Your task to perform on an android device: choose inbox layout in the gmail app Image 0: 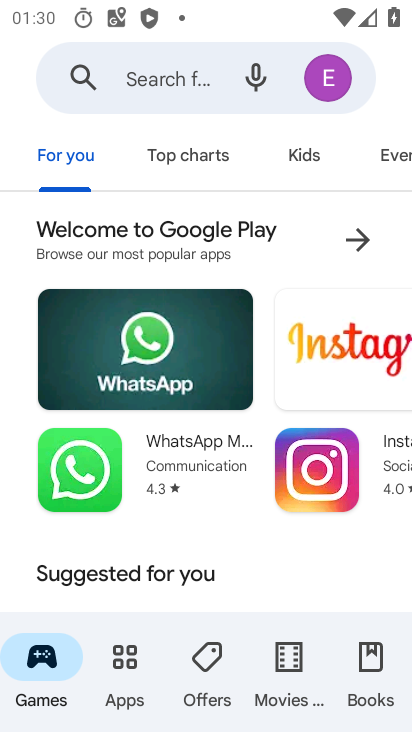
Step 0: press back button
Your task to perform on an android device: choose inbox layout in the gmail app Image 1: 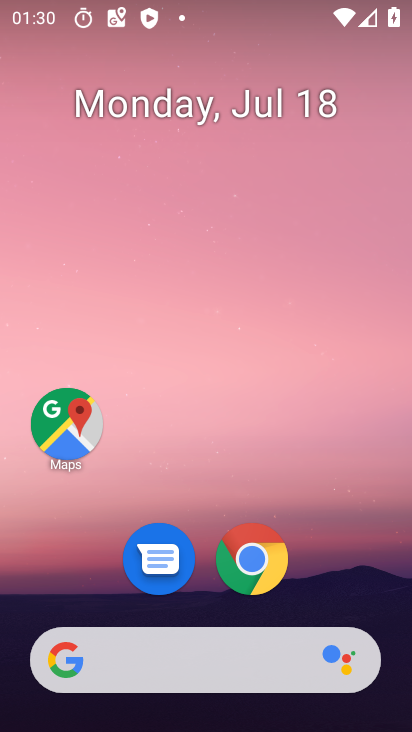
Step 1: drag from (180, 586) to (235, 29)
Your task to perform on an android device: choose inbox layout in the gmail app Image 2: 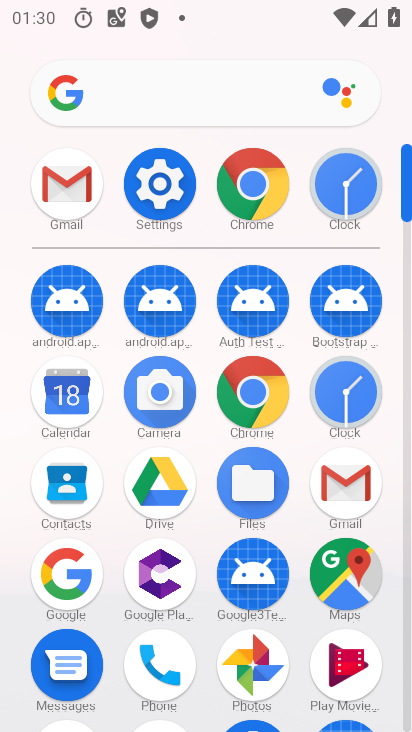
Step 2: click (72, 189)
Your task to perform on an android device: choose inbox layout in the gmail app Image 3: 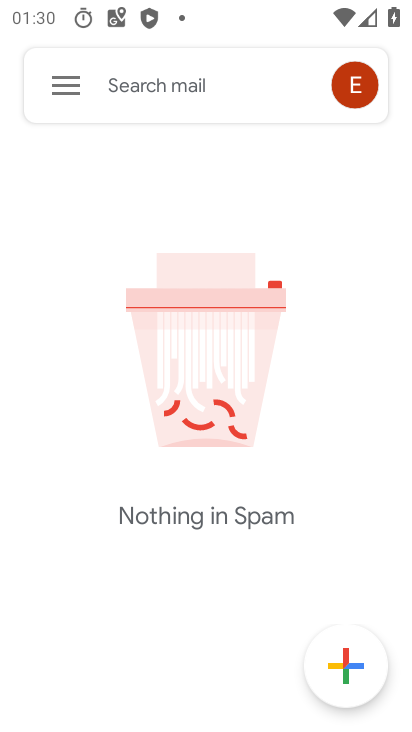
Step 3: click (54, 69)
Your task to perform on an android device: choose inbox layout in the gmail app Image 4: 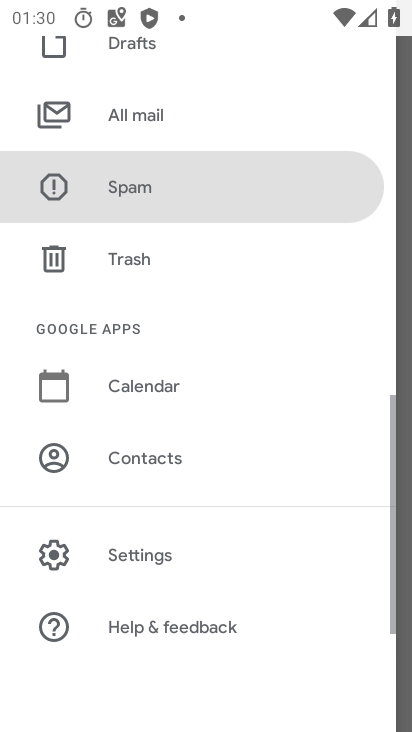
Step 4: click (180, 559)
Your task to perform on an android device: choose inbox layout in the gmail app Image 5: 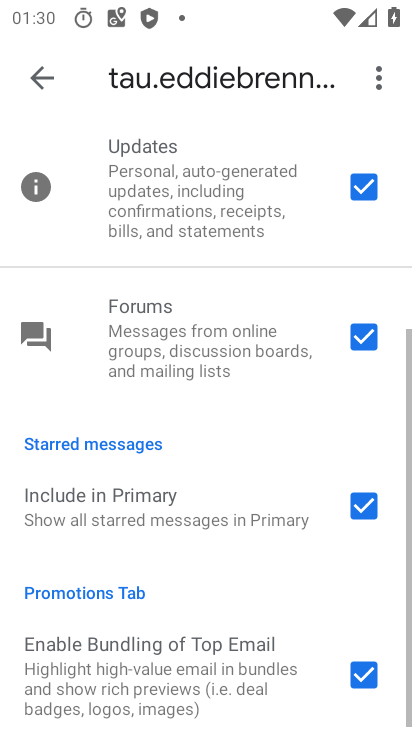
Step 5: drag from (188, 201) to (172, 719)
Your task to perform on an android device: choose inbox layout in the gmail app Image 6: 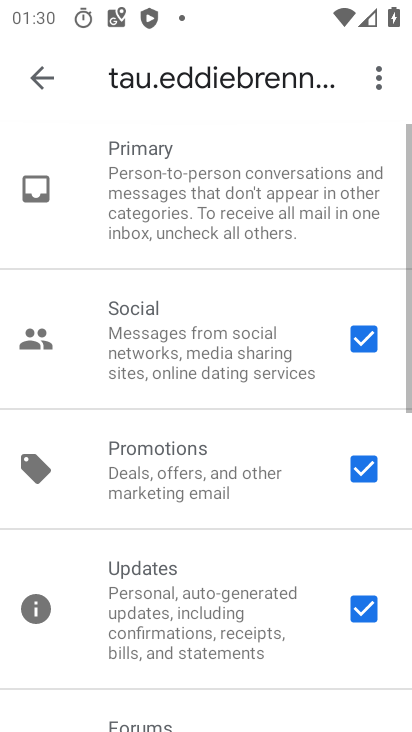
Step 6: drag from (169, 208) to (205, 729)
Your task to perform on an android device: choose inbox layout in the gmail app Image 7: 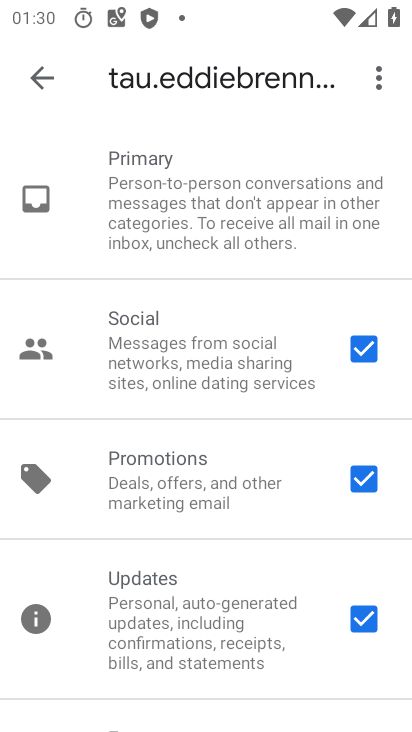
Step 7: click (36, 79)
Your task to perform on an android device: choose inbox layout in the gmail app Image 8: 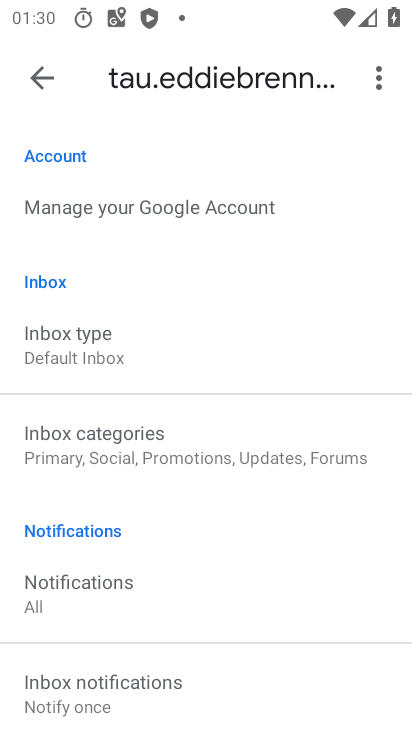
Step 8: click (82, 346)
Your task to perform on an android device: choose inbox layout in the gmail app Image 9: 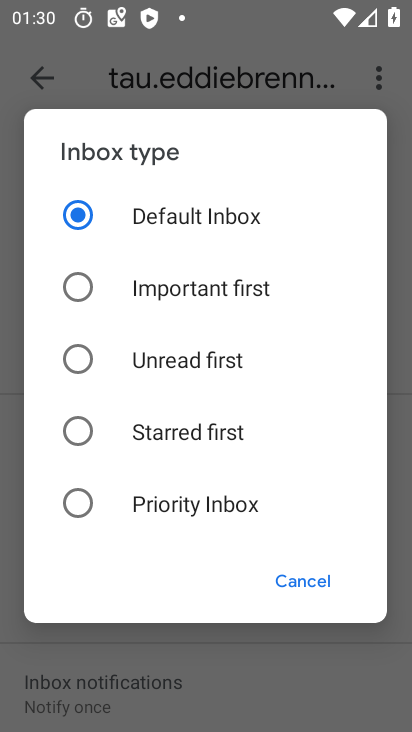
Step 9: click (70, 495)
Your task to perform on an android device: choose inbox layout in the gmail app Image 10: 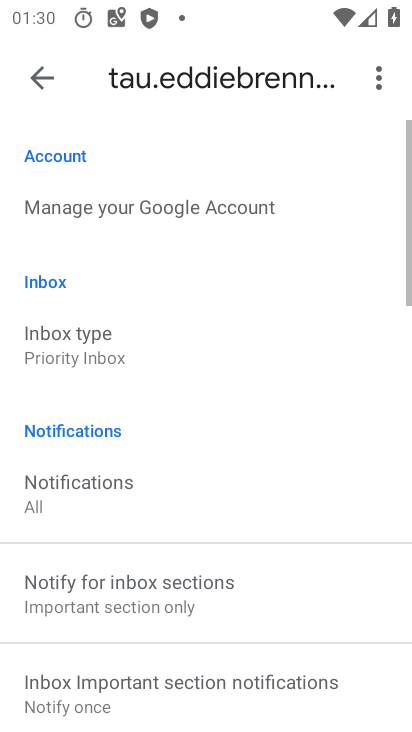
Step 10: task complete